Your task to perform on an android device: Open calendar and show me the second week of next month Image 0: 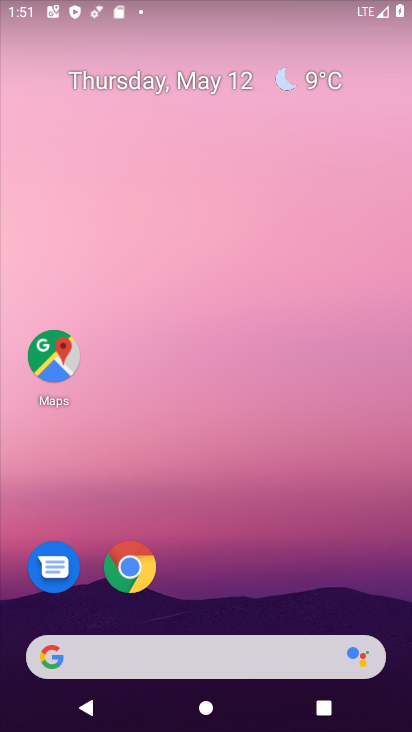
Step 0: drag from (257, 599) to (217, 172)
Your task to perform on an android device: Open calendar and show me the second week of next month Image 1: 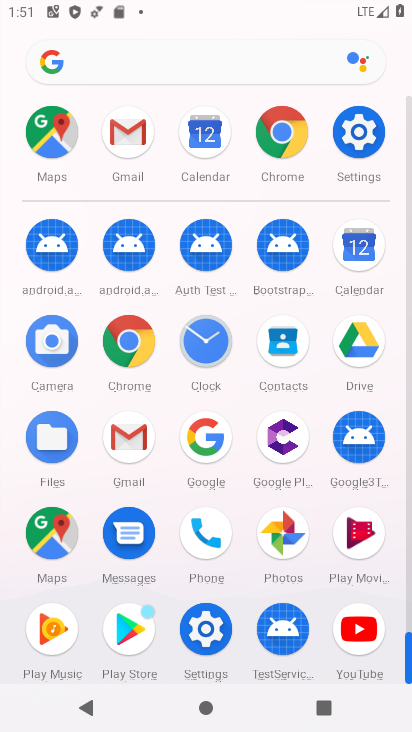
Step 1: click (364, 279)
Your task to perform on an android device: Open calendar and show me the second week of next month Image 2: 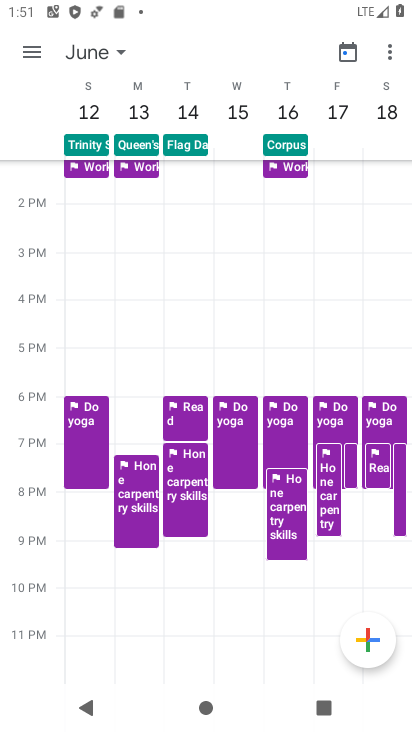
Step 2: click (91, 53)
Your task to perform on an android device: Open calendar and show me the second week of next month Image 3: 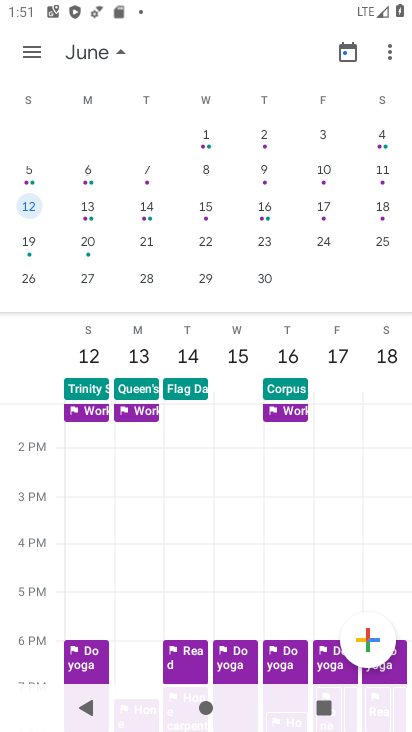
Step 3: click (34, 204)
Your task to perform on an android device: Open calendar and show me the second week of next month Image 4: 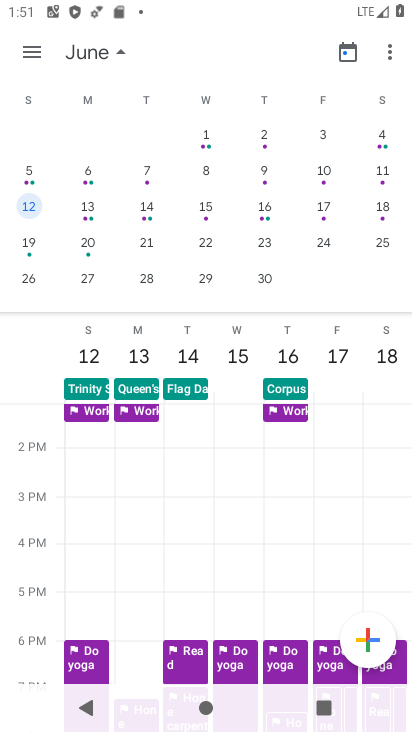
Step 4: click (225, 224)
Your task to perform on an android device: Open calendar and show me the second week of next month Image 5: 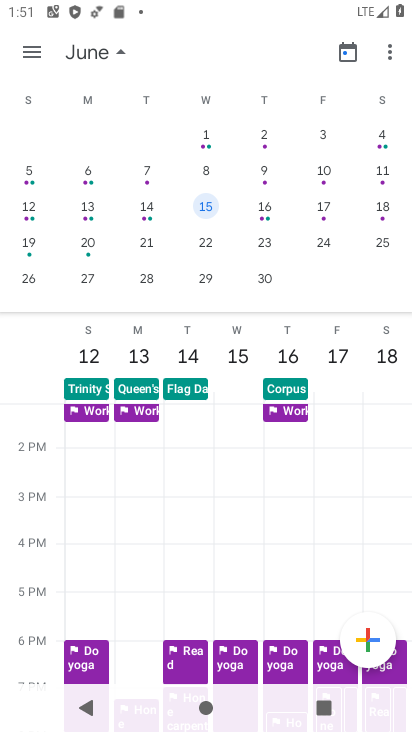
Step 5: click (25, 199)
Your task to perform on an android device: Open calendar and show me the second week of next month Image 6: 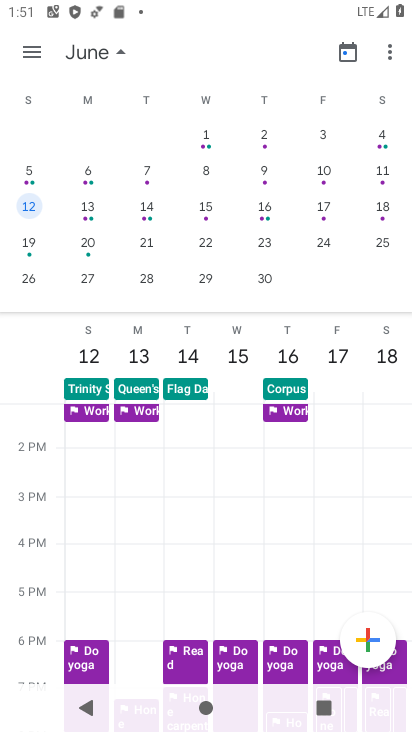
Step 6: task complete